Your task to perform on an android device: Open settings Image 0: 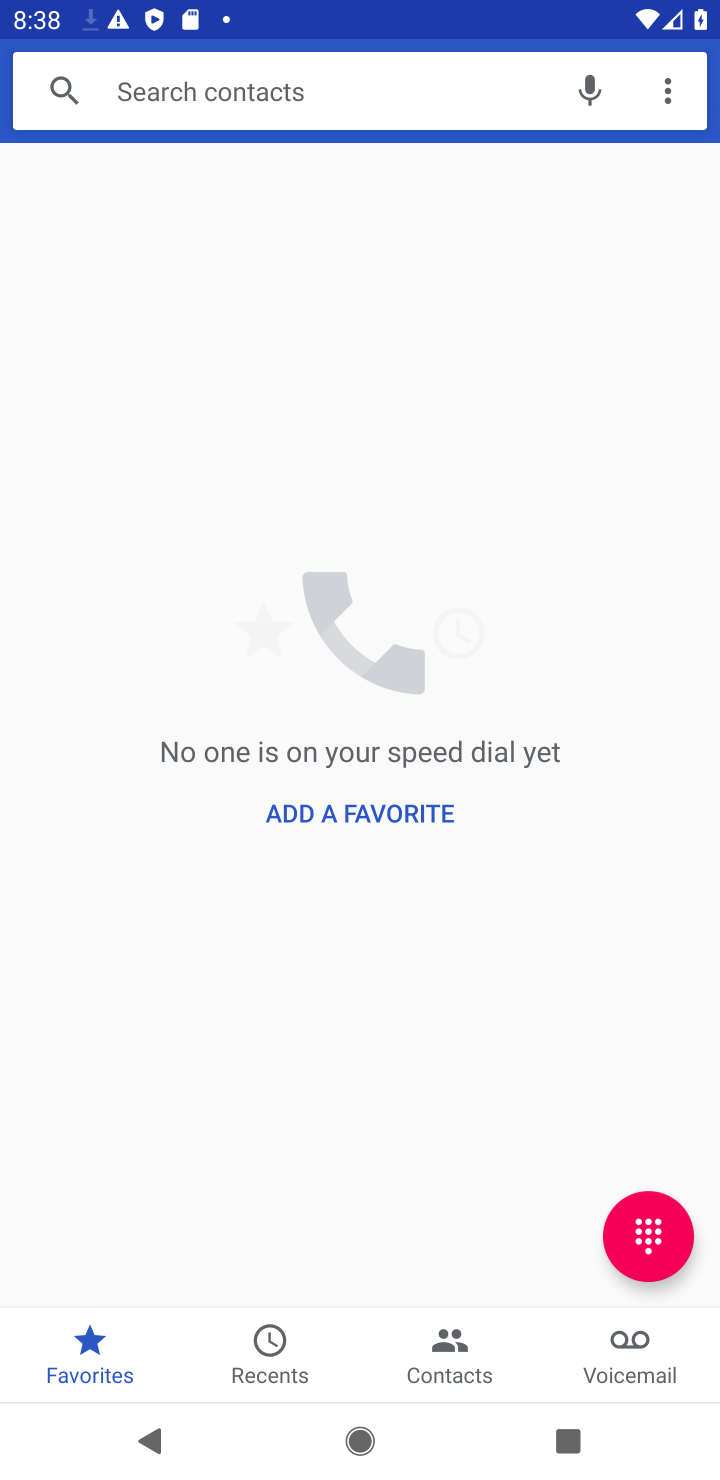
Step 0: press home button
Your task to perform on an android device: Open settings Image 1: 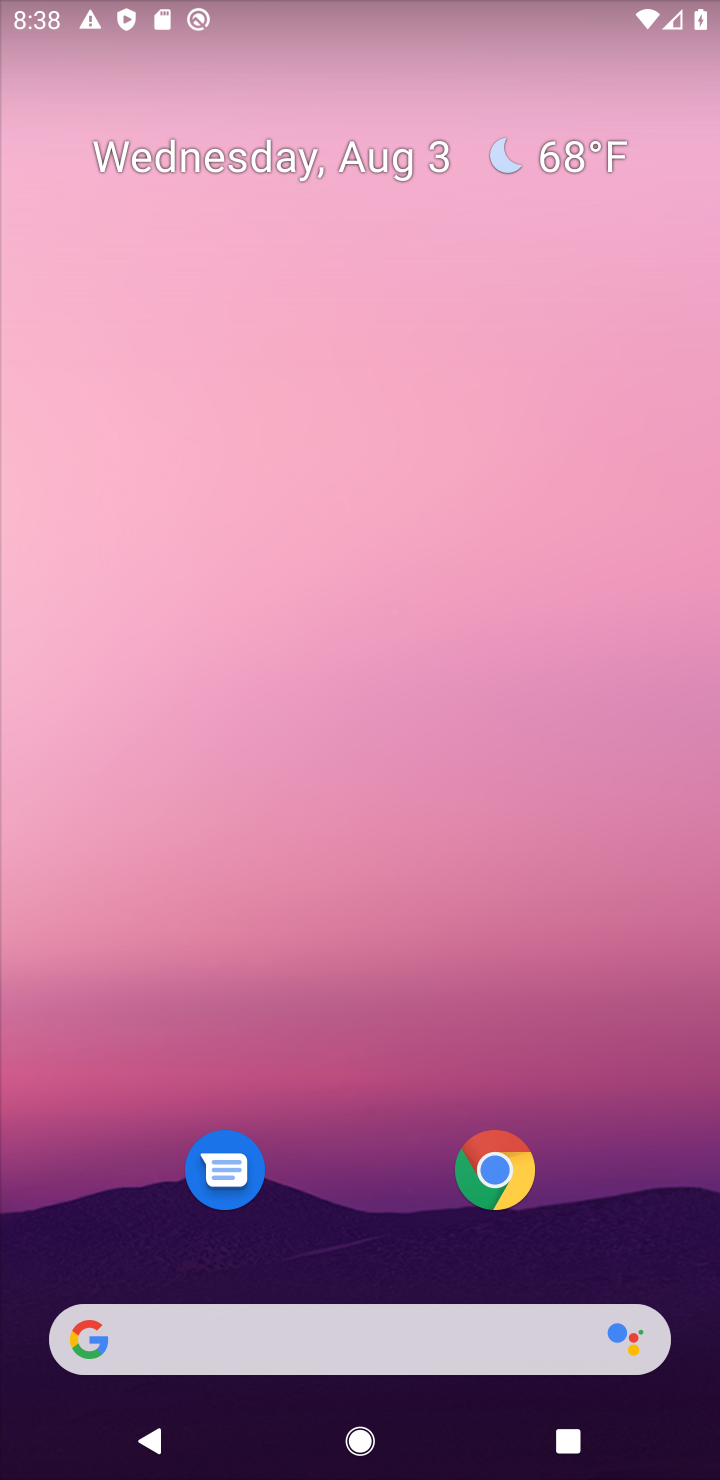
Step 1: drag from (649, 1094) to (649, 271)
Your task to perform on an android device: Open settings Image 2: 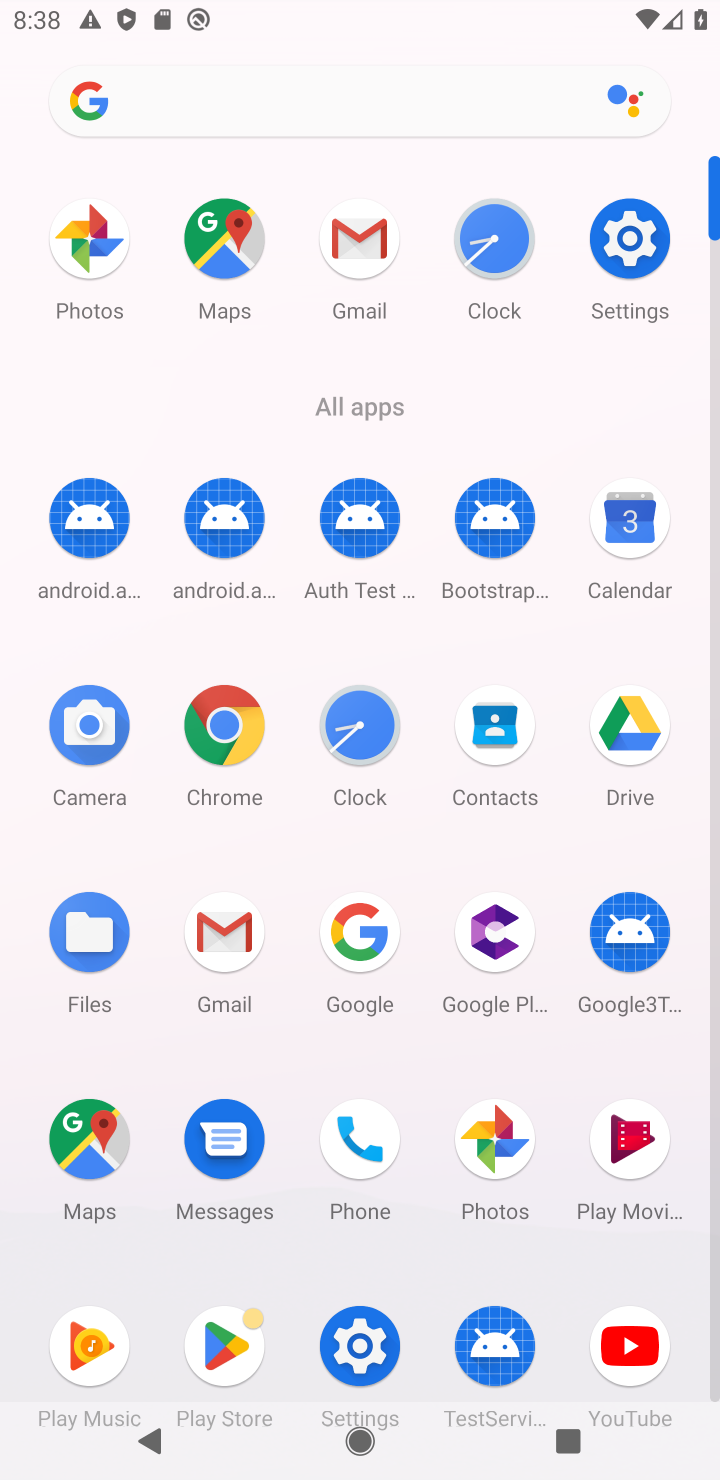
Step 2: click (350, 1339)
Your task to perform on an android device: Open settings Image 3: 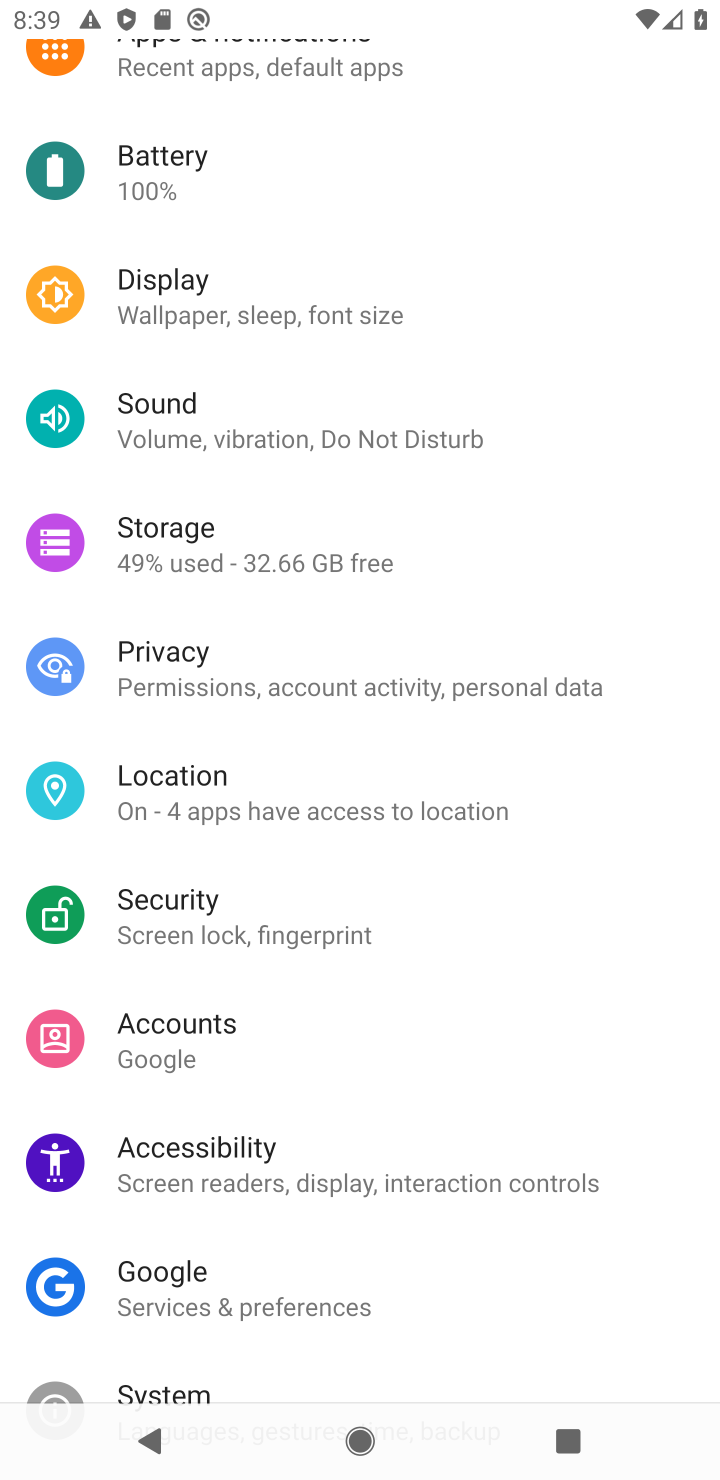
Step 3: task complete